Your task to perform on an android device: When is my next meeting? Image 0: 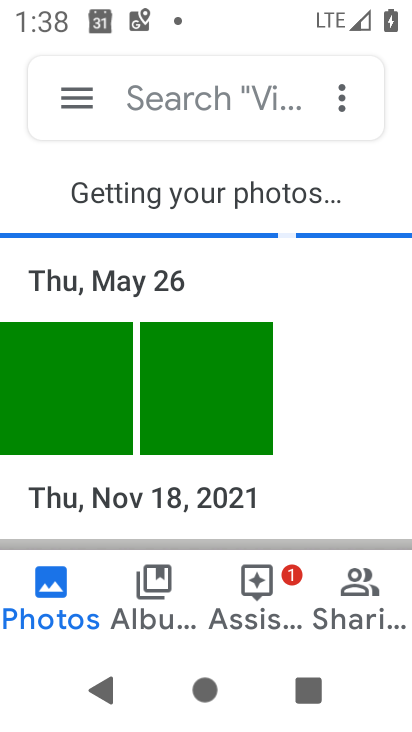
Step 0: press home button
Your task to perform on an android device: When is my next meeting? Image 1: 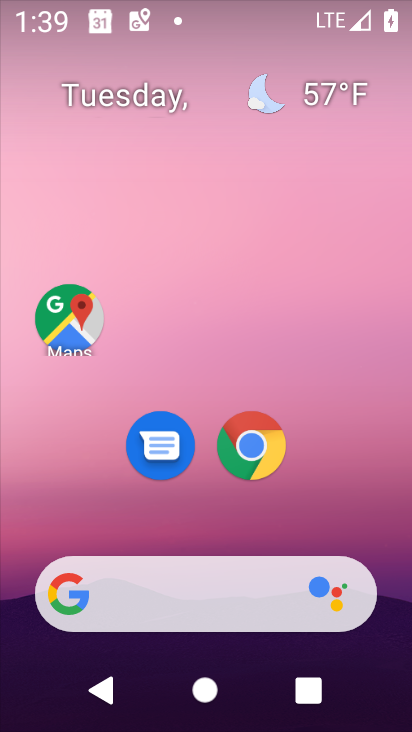
Step 1: drag from (359, 488) to (345, 145)
Your task to perform on an android device: When is my next meeting? Image 2: 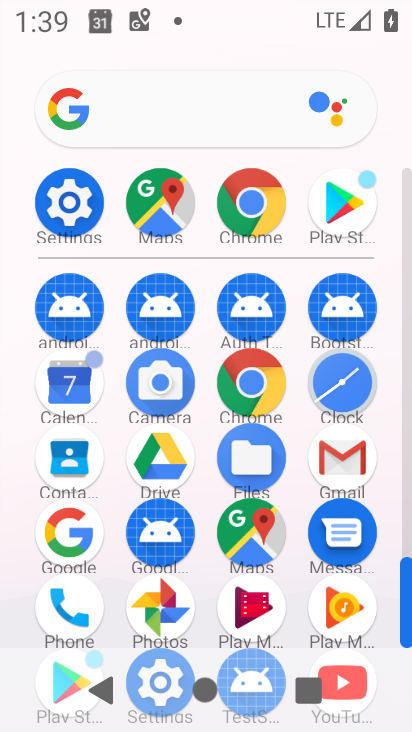
Step 2: click (90, 396)
Your task to perform on an android device: When is my next meeting? Image 3: 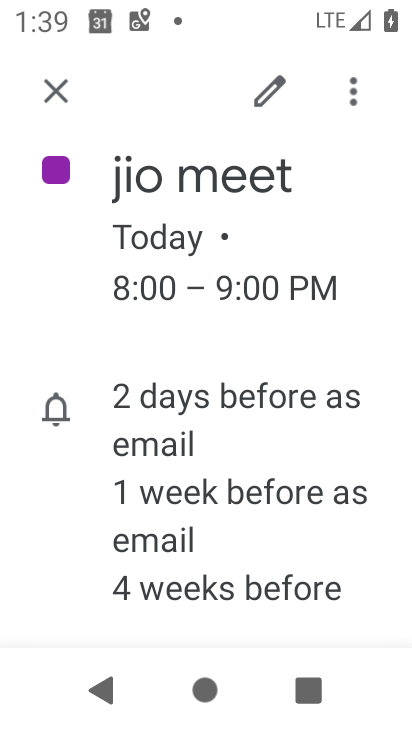
Step 3: task complete